Your task to perform on an android device: open app "Adobe Acrobat Reader: Edit PDF" (install if not already installed) and go to login screen Image 0: 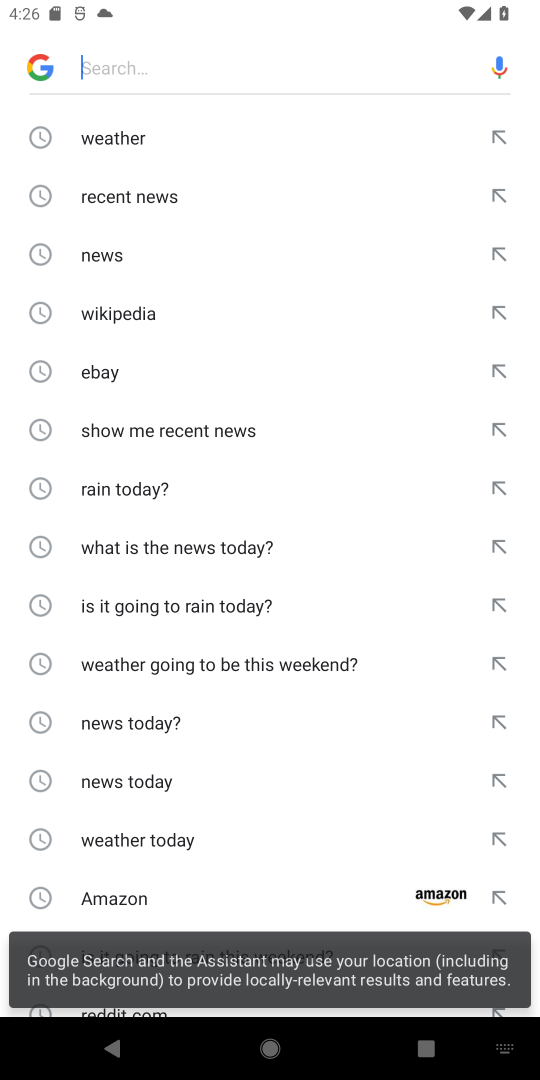
Step 0: press home button
Your task to perform on an android device: open app "Adobe Acrobat Reader: Edit PDF" (install if not already installed) and go to login screen Image 1: 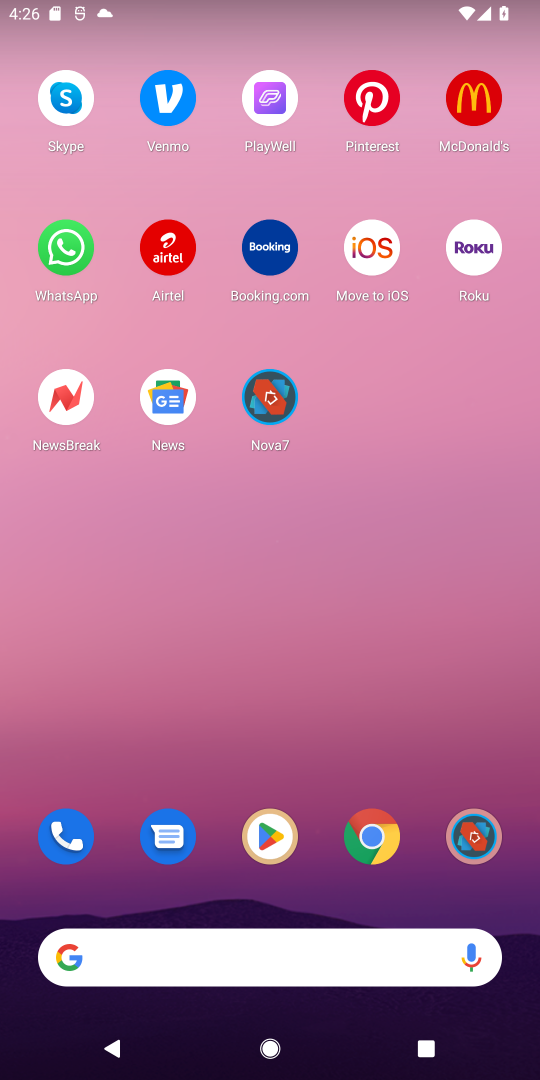
Step 1: click (273, 835)
Your task to perform on an android device: open app "Adobe Acrobat Reader: Edit PDF" (install if not already installed) and go to login screen Image 2: 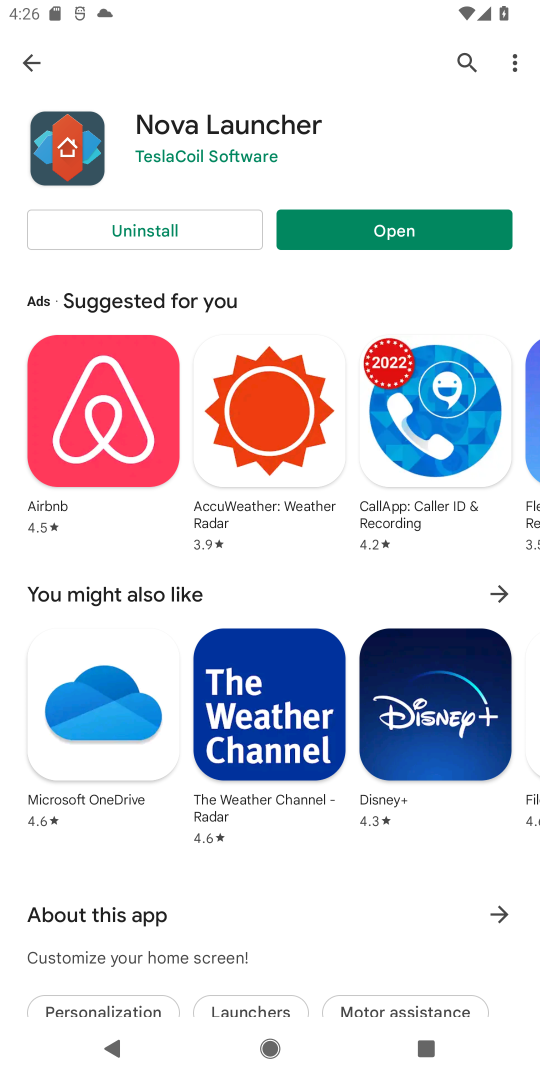
Step 2: click (469, 57)
Your task to perform on an android device: open app "Adobe Acrobat Reader: Edit PDF" (install if not already installed) and go to login screen Image 3: 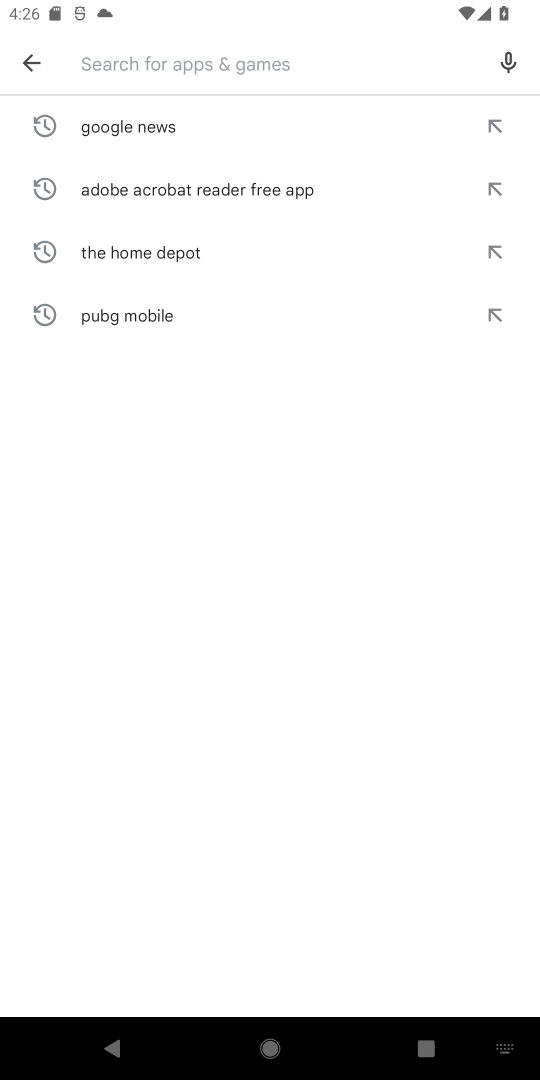
Step 3: type "Adobe Acrobat Reader: Edit PDF"
Your task to perform on an android device: open app "Adobe Acrobat Reader: Edit PDF" (install if not already installed) and go to login screen Image 4: 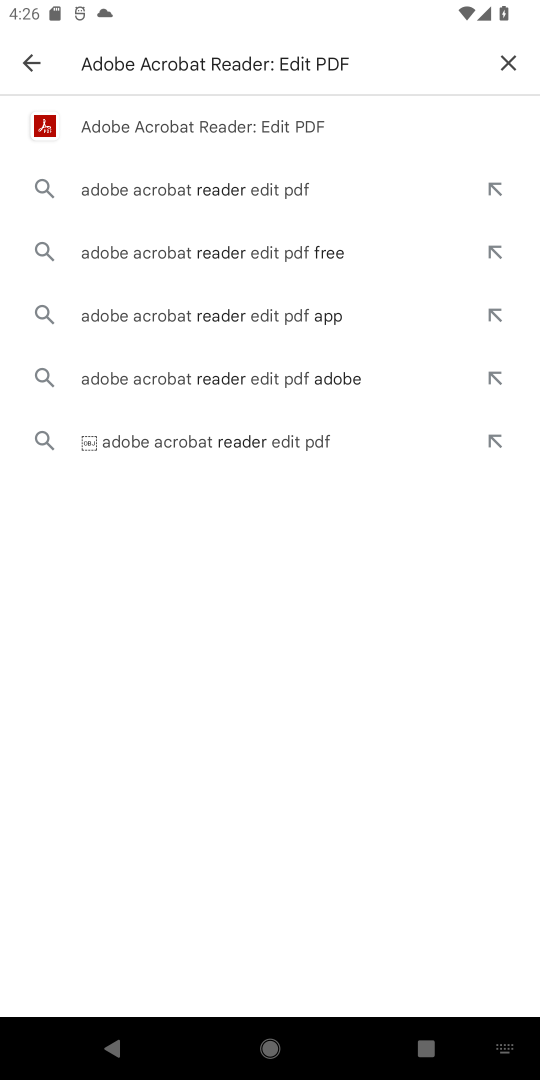
Step 4: click (127, 135)
Your task to perform on an android device: open app "Adobe Acrobat Reader: Edit PDF" (install if not already installed) and go to login screen Image 5: 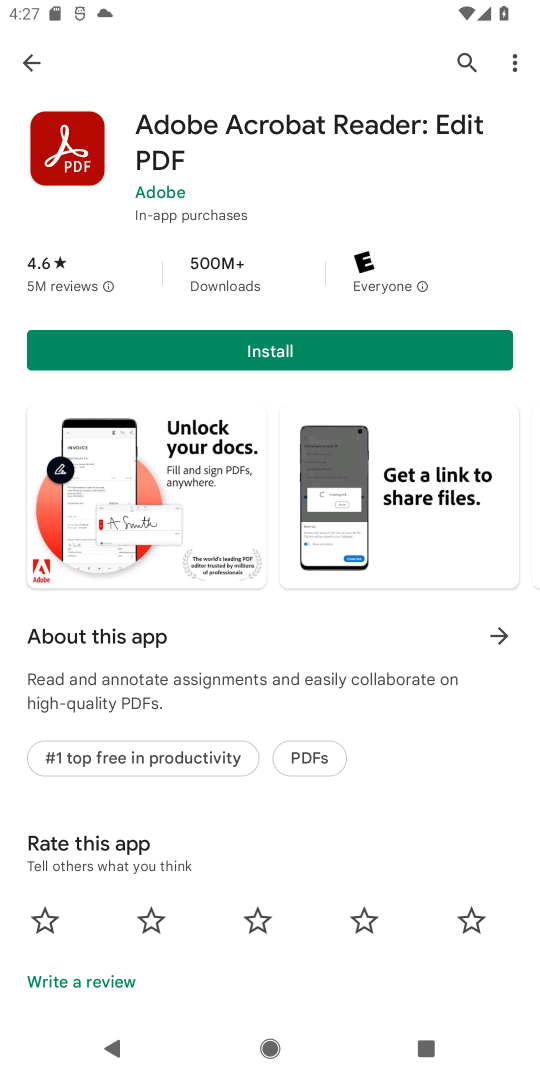
Step 5: click (260, 349)
Your task to perform on an android device: open app "Adobe Acrobat Reader: Edit PDF" (install if not already installed) and go to login screen Image 6: 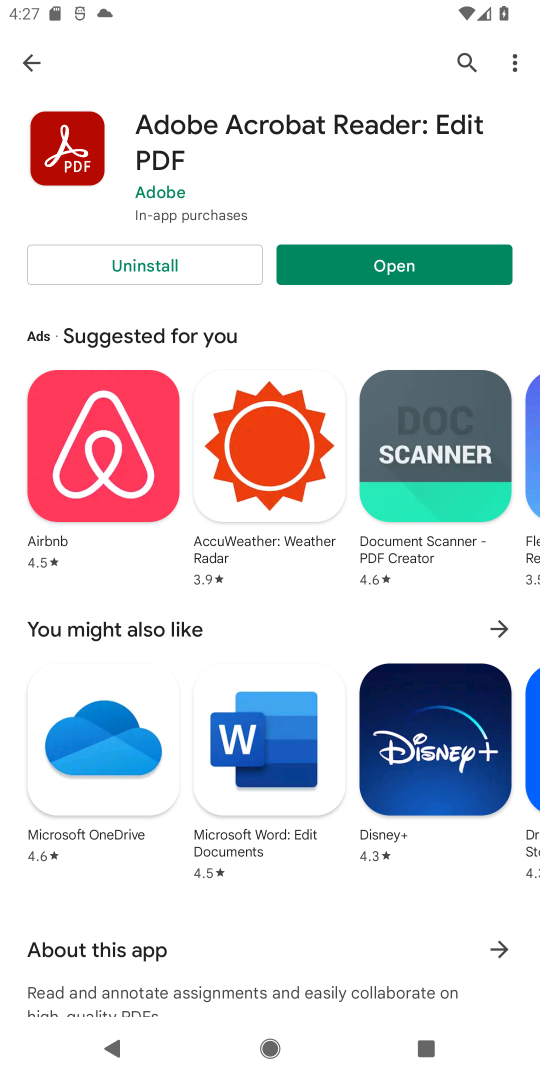
Step 6: click (390, 269)
Your task to perform on an android device: open app "Adobe Acrobat Reader: Edit PDF" (install if not already installed) and go to login screen Image 7: 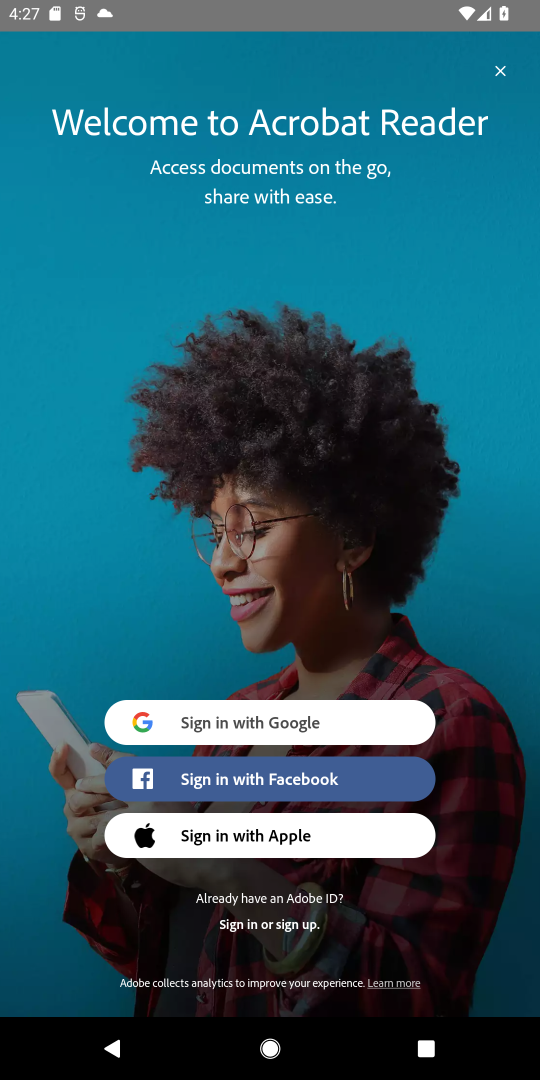
Step 7: click (252, 927)
Your task to perform on an android device: open app "Adobe Acrobat Reader: Edit PDF" (install if not already installed) and go to login screen Image 8: 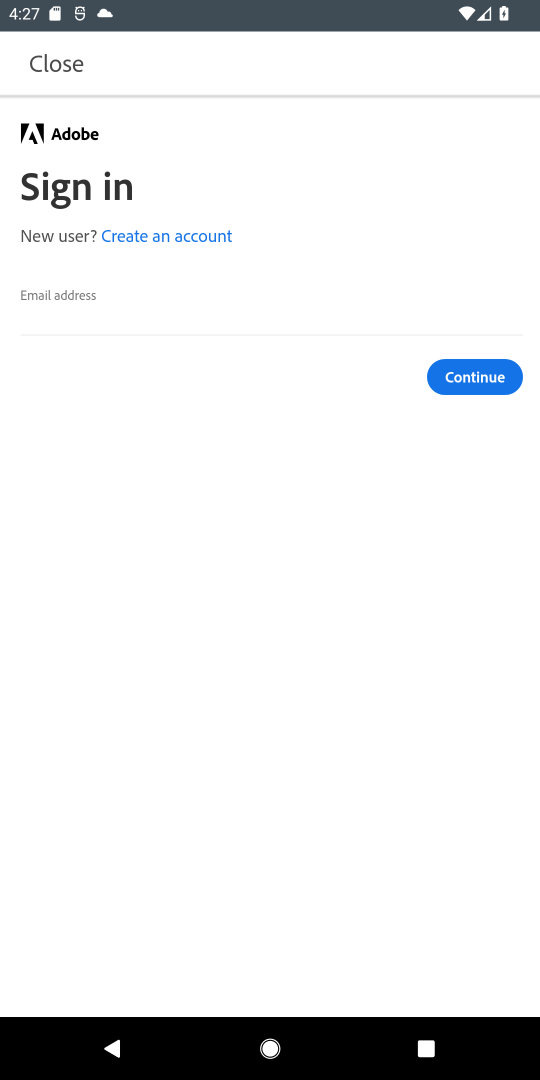
Step 8: click (107, 299)
Your task to perform on an android device: open app "Adobe Acrobat Reader: Edit PDF" (install if not already installed) and go to login screen Image 9: 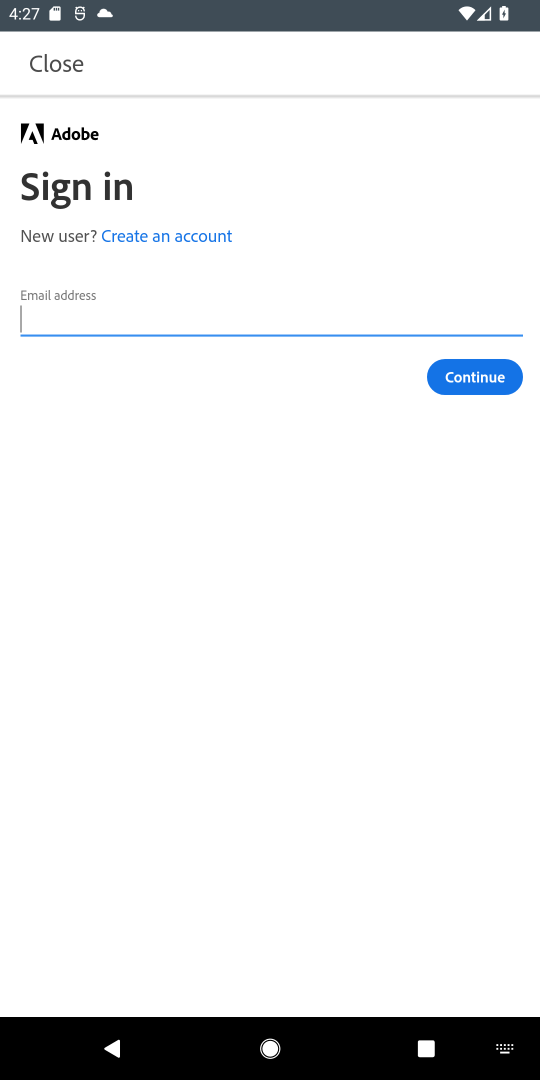
Step 9: task complete